Your task to perform on an android device: open app "ZOOM Cloud Meetings" (install if not already installed) Image 0: 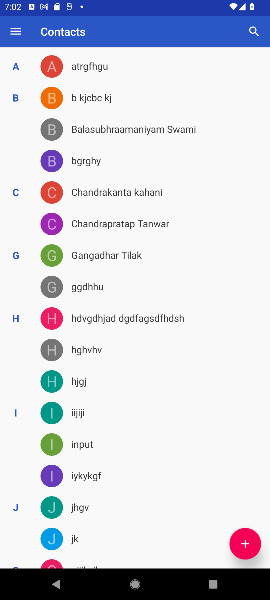
Step 0: press home button
Your task to perform on an android device: open app "ZOOM Cloud Meetings" (install if not already installed) Image 1: 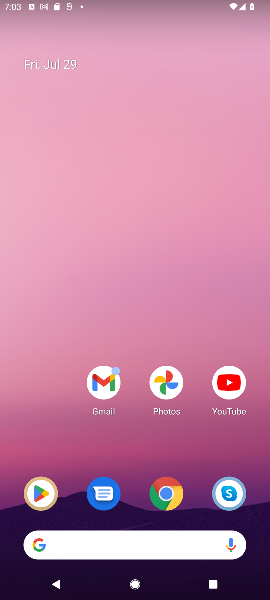
Step 1: click (42, 497)
Your task to perform on an android device: open app "ZOOM Cloud Meetings" (install if not already installed) Image 2: 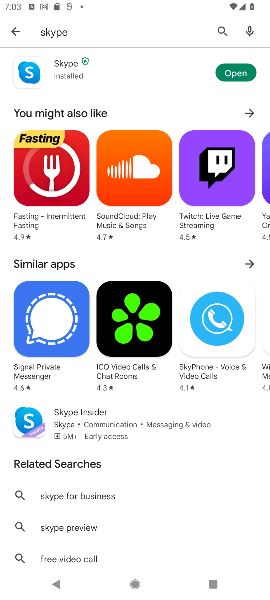
Step 2: click (221, 27)
Your task to perform on an android device: open app "ZOOM Cloud Meetings" (install if not already installed) Image 3: 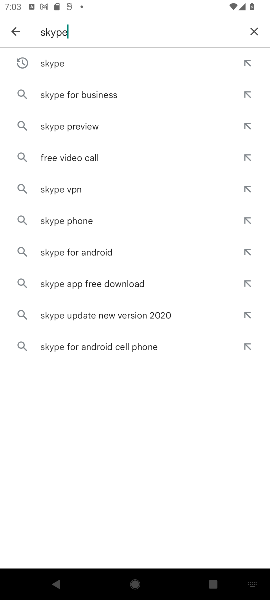
Step 3: click (250, 29)
Your task to perform on an android device: open app "ZOOM Cloud Meetings" (install if not already installed) Image 4: 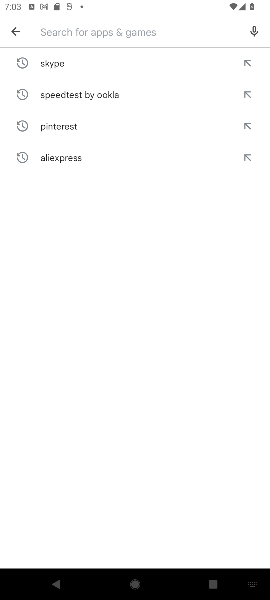
Step 4: type "ZOOM Cloud Meetings"
Your task to perform on an android device: open app "ZOOM Cloud Meetings" (install if not already installed) Image 5: 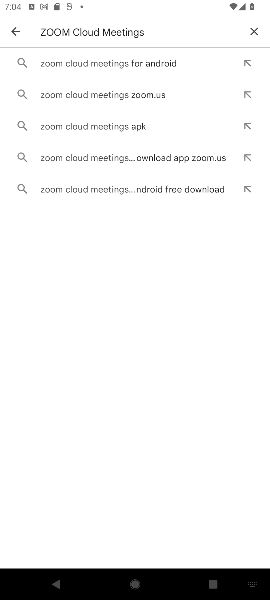
Step 5: click (78, 126)
Your task to perform on an android device: open app "ZOOM Cloud Meetings" (install if not already installed) Image 6: 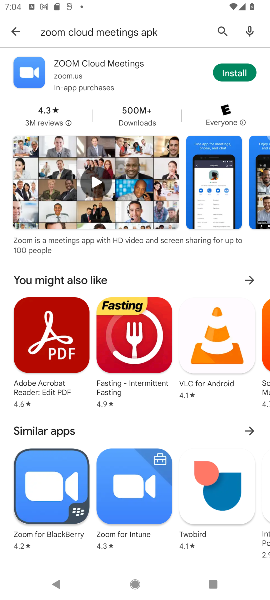
Step 6: click (223, 73)
Your task to perform on an android device: open app "ZOOM Cloud Meetings" (install if not already installed) Image 7: 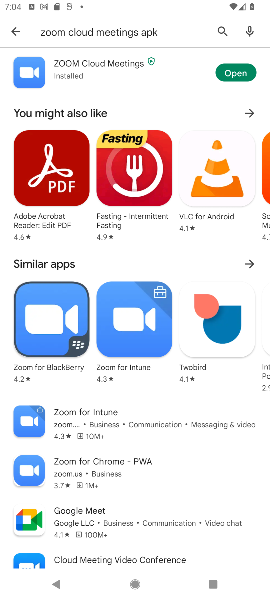
Step 7: task complete